Your task to perform on an android device: Search for a new lawnmower on Lowes.com Image 0: 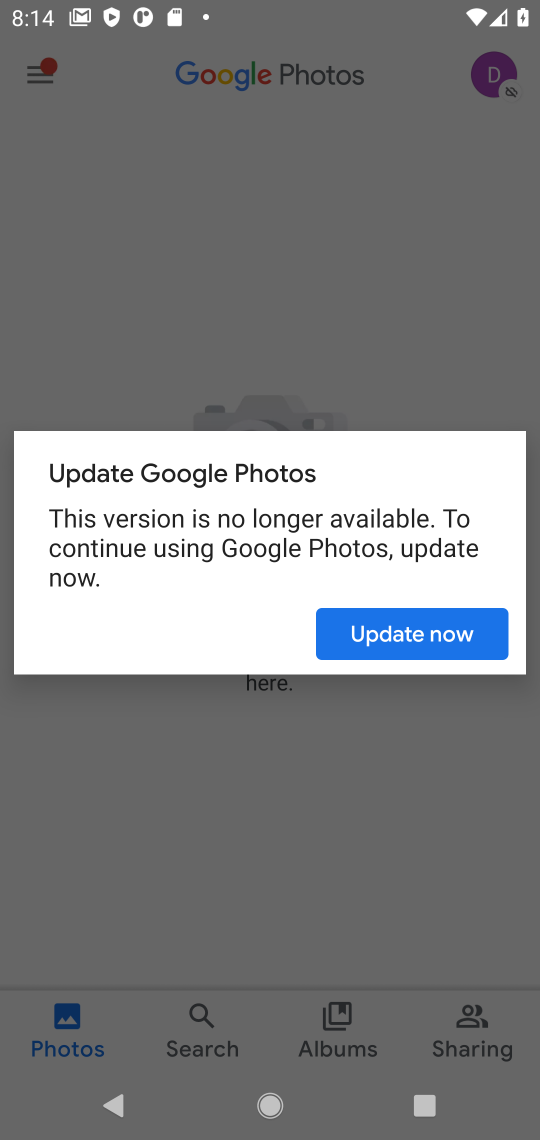
Step 0: press home button
Your task to perform on an android device: Search for a new lawnmower on Lowes.com Image 1: 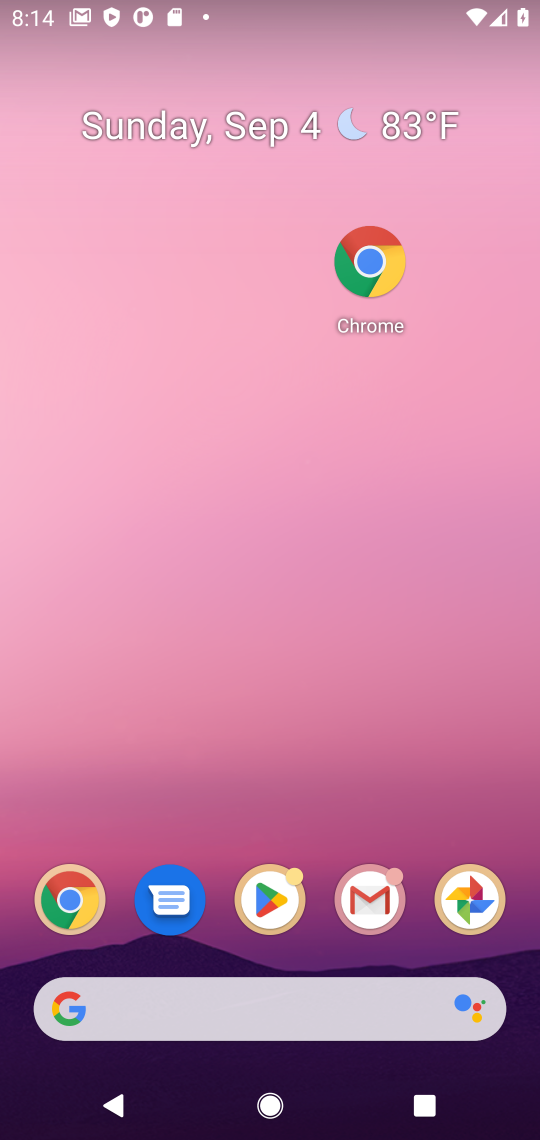
Step 1: click (380, 273)
Your task to perform on an android device: Search for a new lawnmower on Lowes.com Image 2: 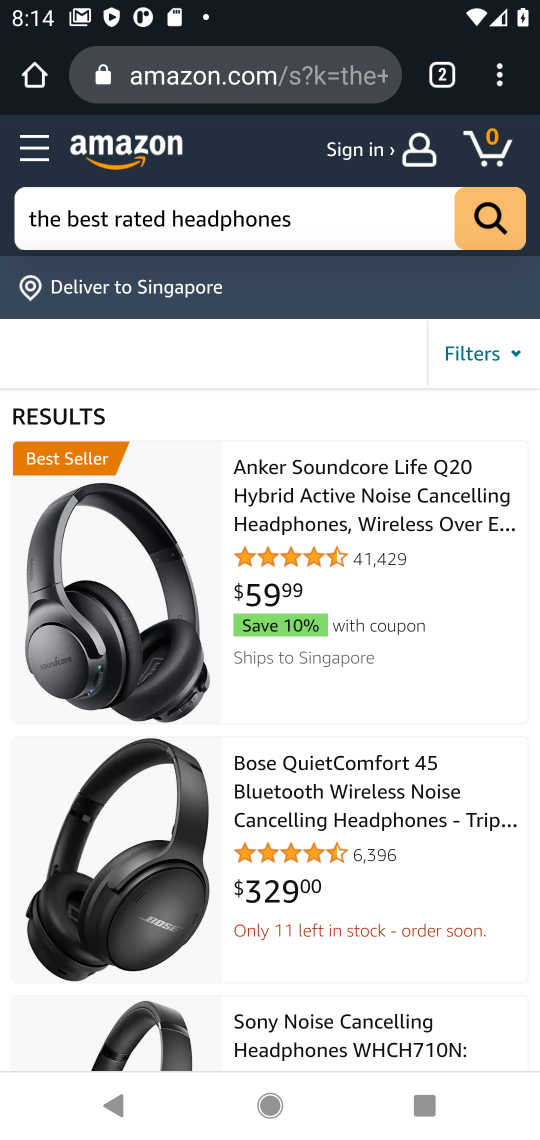
Step 2: click (436, 70)
Your task to perform on an android device: Search for a new lawnmower on Lowes.com Image 3: 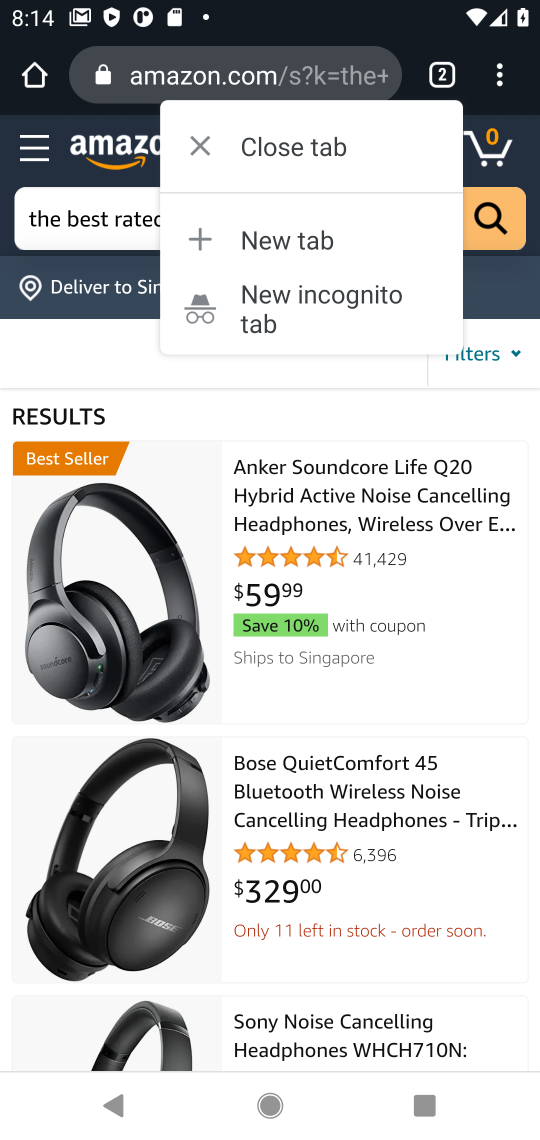
Step 3: click (331, 235)
Your task to perform on an android device: Search for a new lawnmower on Lowes.com Image 4: 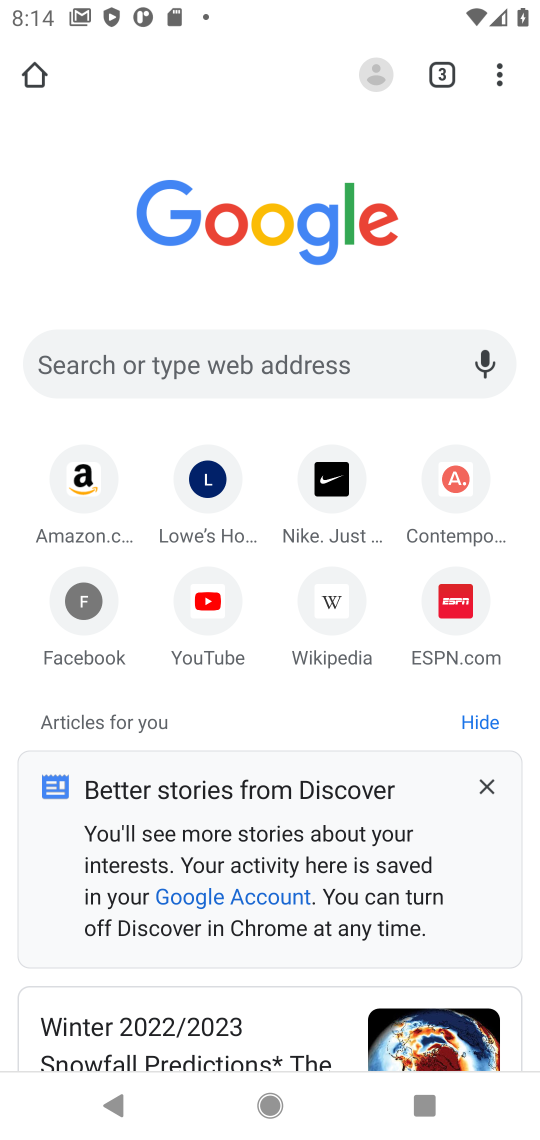
Step 4: click (214, 501)
Your task to perform on an android device: Search for a new lawnmower on Lowes.com Image 5: 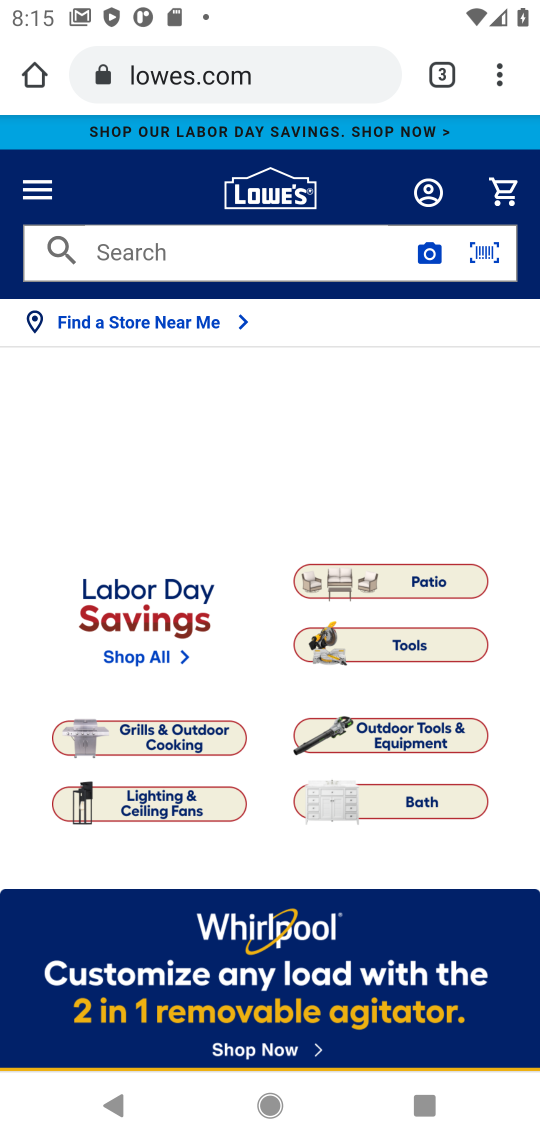
Step 5: click (233, 258)
Your task to perform on an android device: Search for a new lawnmower on Lowes.com Image 6: 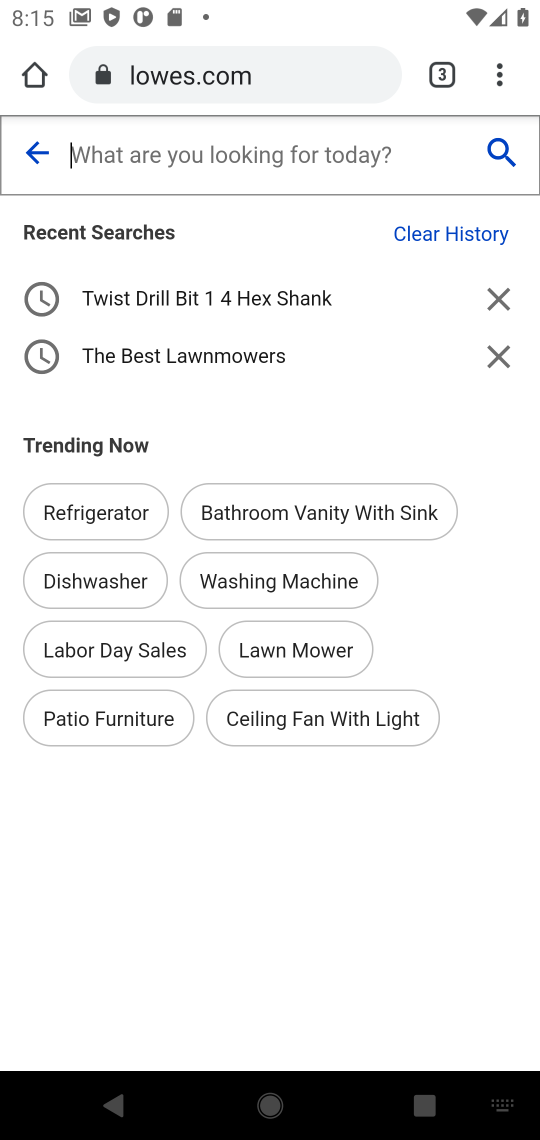
Step 6: type "new lawnmower"
Your task to perform on an android device: Search for a new lawnmower on Lowes.com Image 7: 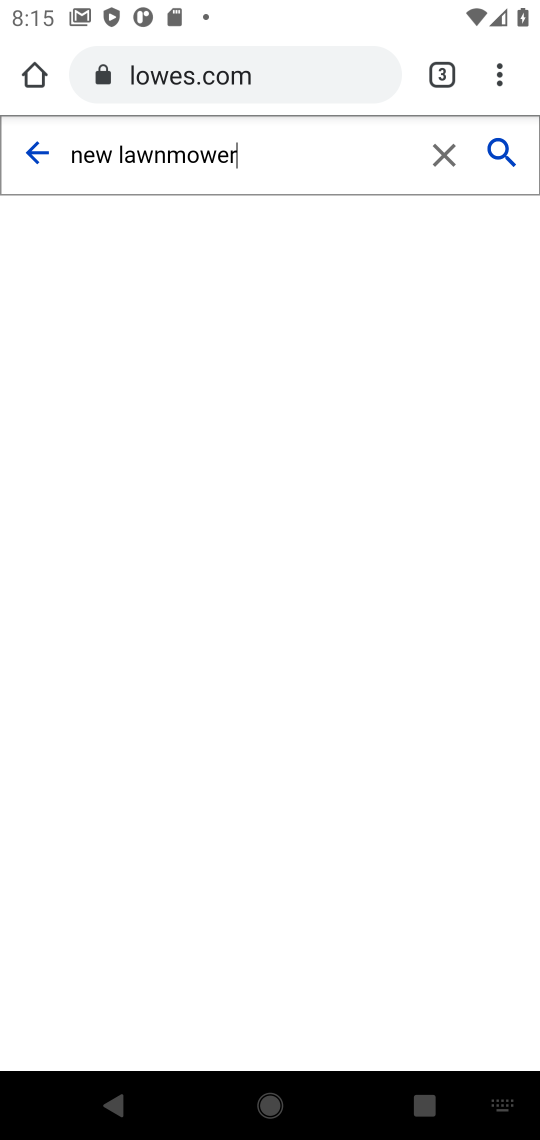
Step 7: click (498, 164)
Your task to perform on an android device: Search for a new lawnmower on Lowes.com Image 8: 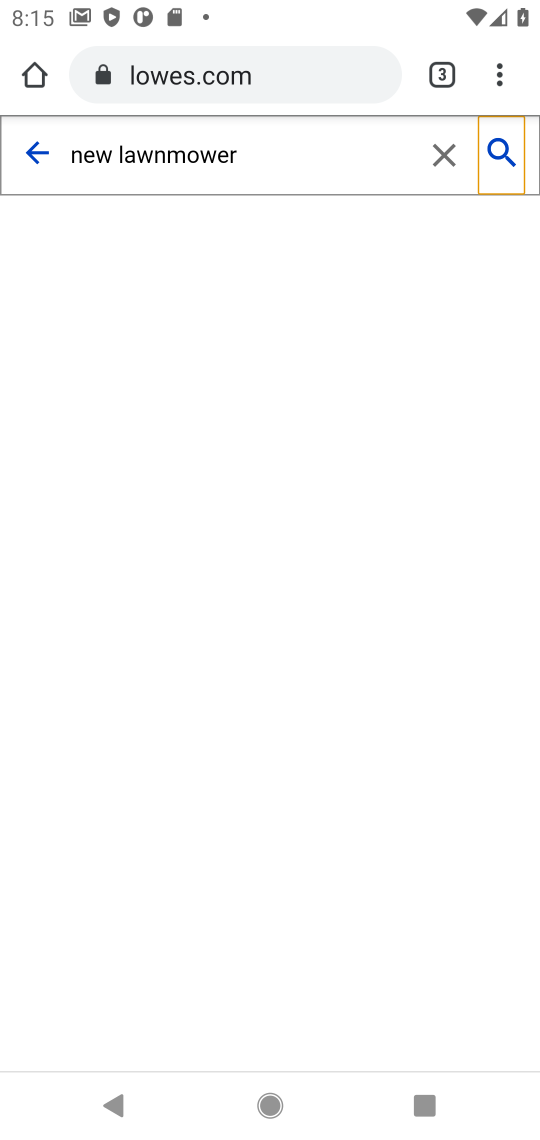
Step 8: click (498, 164)
Your task to perform on an android device: Search for a new lawnmower on Lowes.com Image 9: 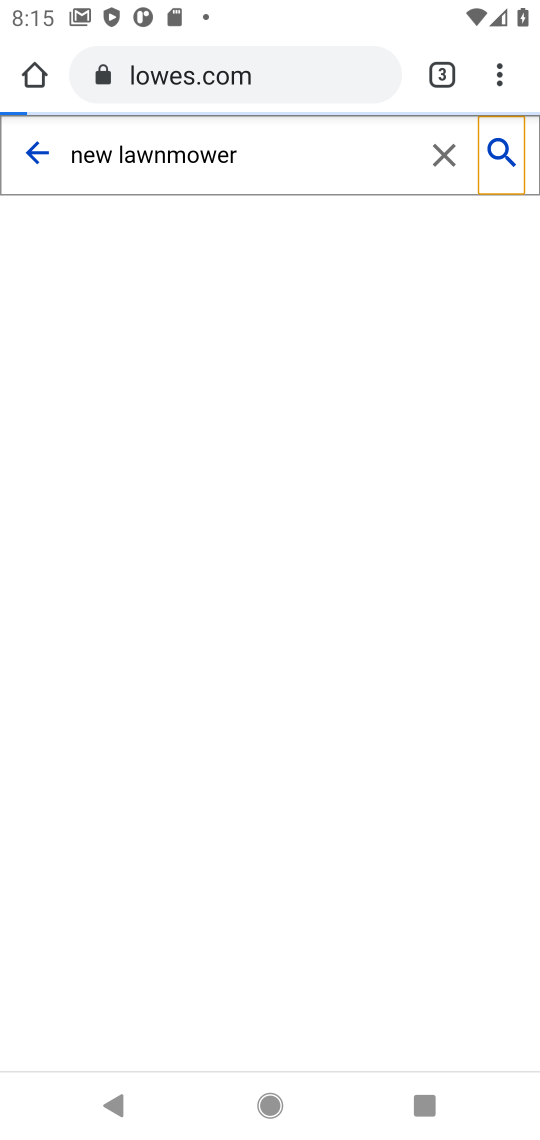
Step 9: click (498, 164)
Your task to perform on an android device: Search for a new lawnmower on Lowes.com Image 10: 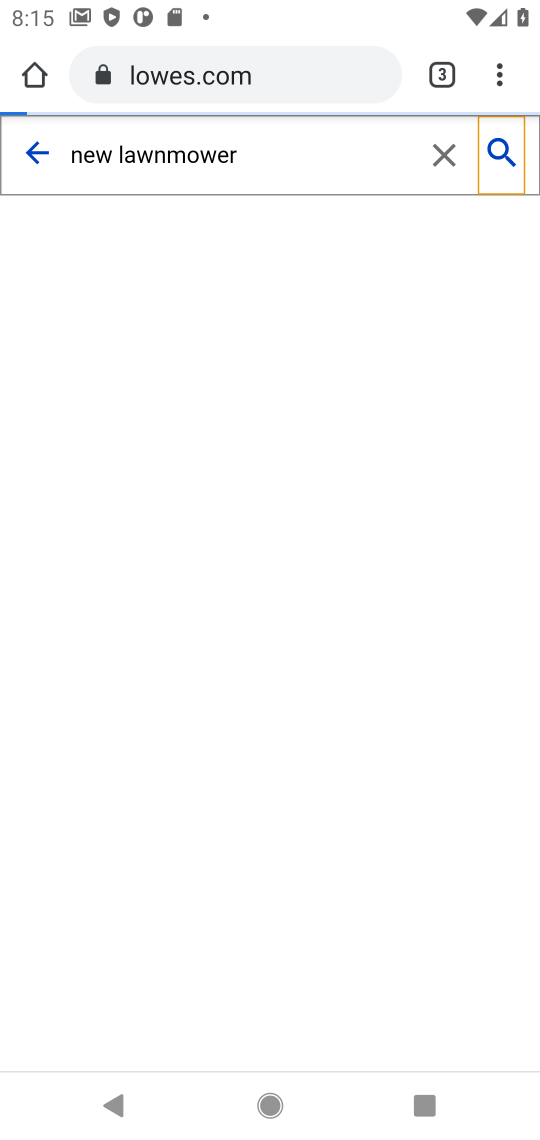
Step 10: click (498, 164)
Your task to perform on an android device: Search for a new lawnmower on Lowes.com Image 11: 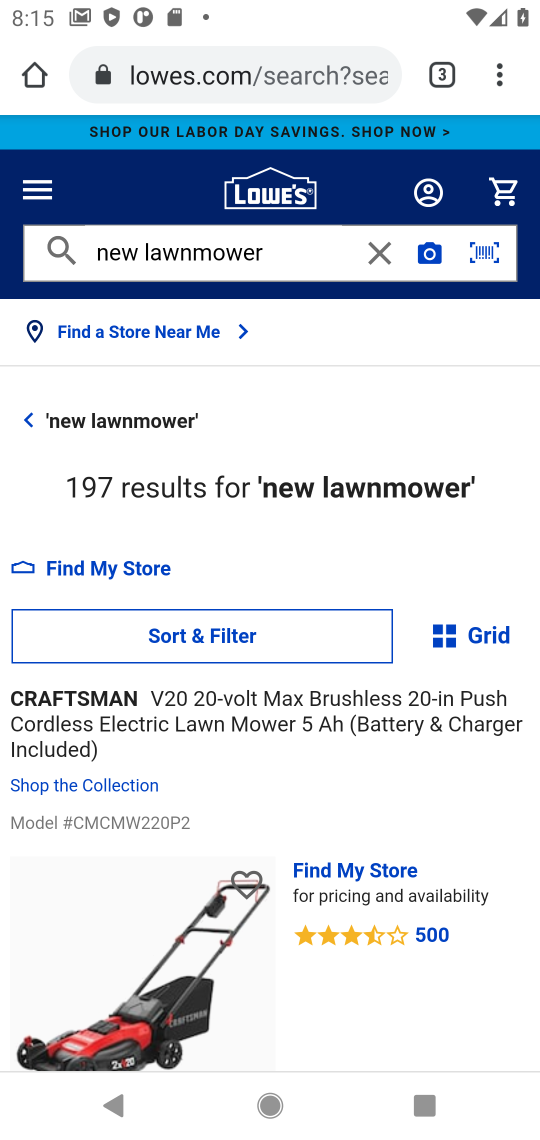
Step 11: task complete